Your task to perform on an android device: check android version Image 0: 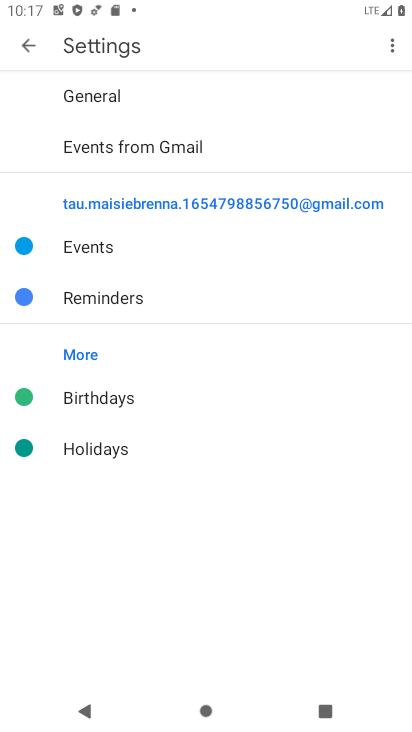
Step 0: press home button
Your task to perform on an android device: check android version Image 1: 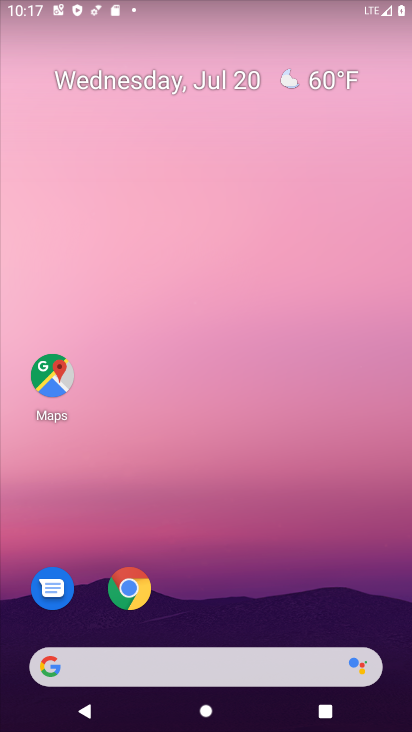
Step 1: drag from (237, 599) to (272, 7)
Your task to perform on an android device: check android version Image 2: 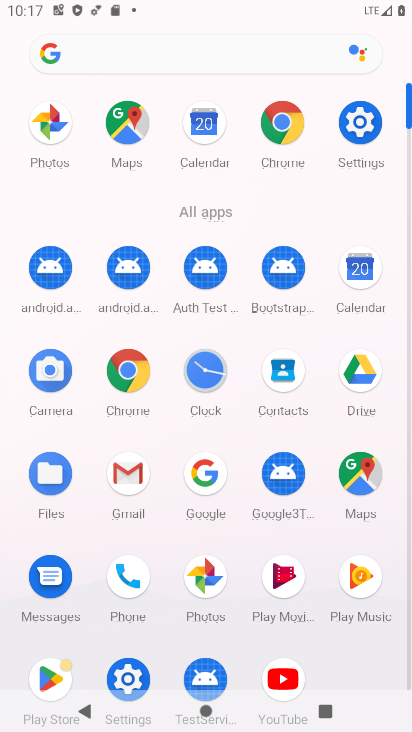
Step 2: click (354, 129)
Your task to perform on an android device: check android version Image 3: 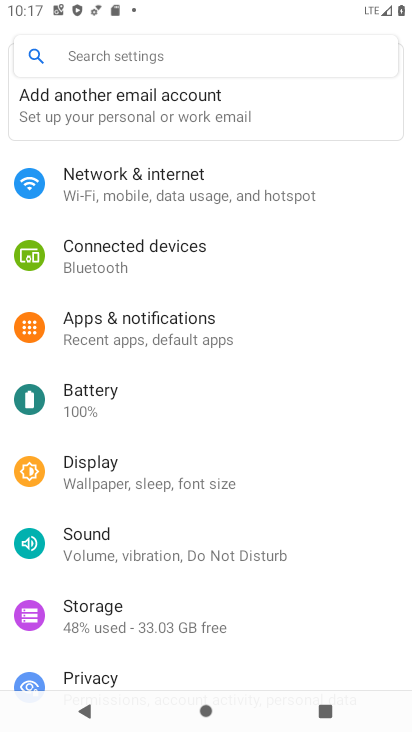
Step 3: drag from (170, 664) to (182, 184)
Your task to perform on an android device: check android version Image 4: 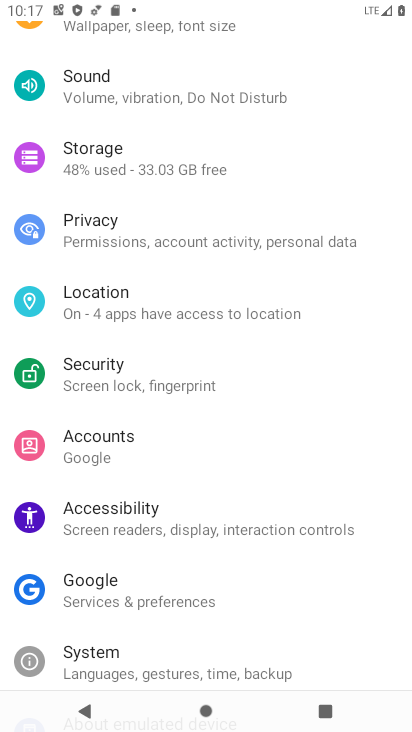
Step 4: drag from (145, 670) to (153, 347)
Your task to perform on an android device: check android version Image 5: 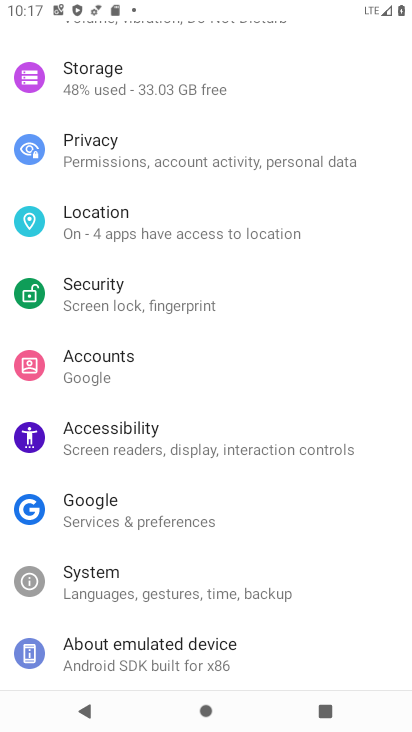
Step 5: click (176, 659)
Your task to perform on an android device: check android version Image 6: 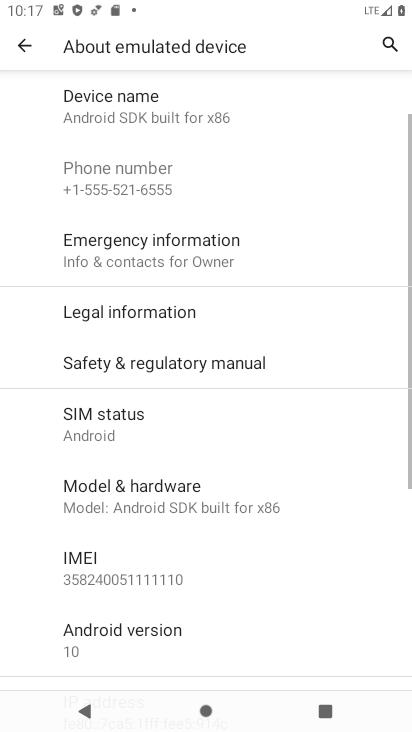
Step 6: click (137, 650)
Your task to perform on an android device: check android version Image 7: 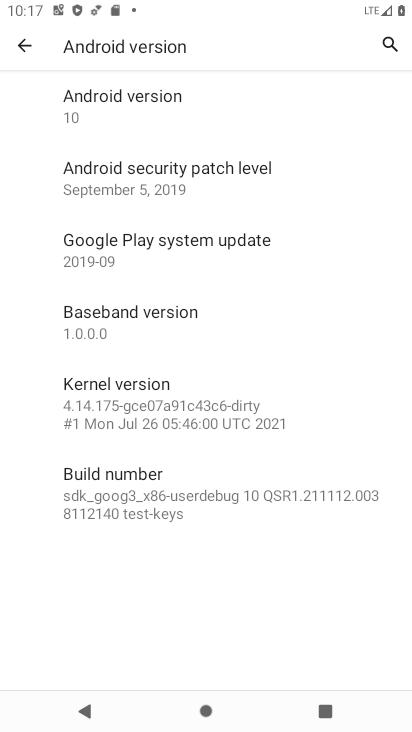
Step 7: task complete